Your task to perform on an android device: Show me productivity apps on the Play Store Image 0: 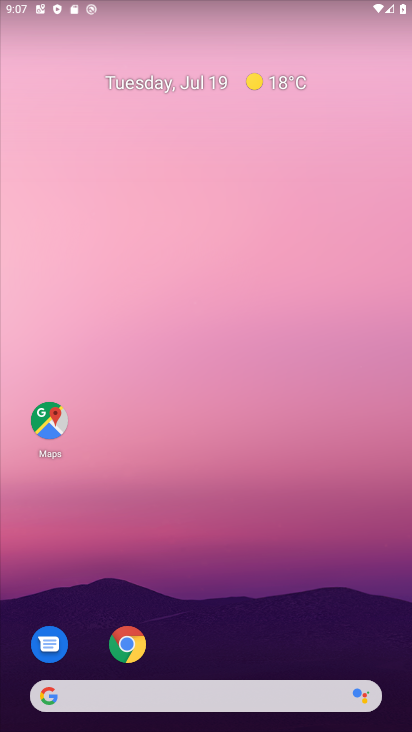
Step 0: drag from (233, 726) to (232, 197)
Your task to perform on an android device: Show me productivity apps on the Play Store Image 1: 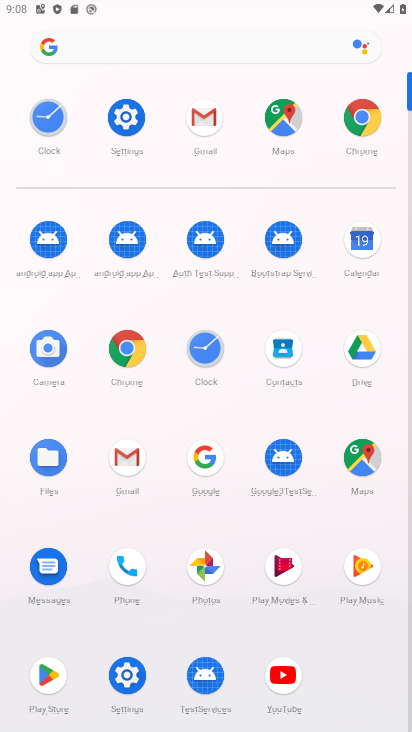
Step 1: click (43, 682)
Your task to perform on an android device: Show me productivity apps on the Play Store Image 2: 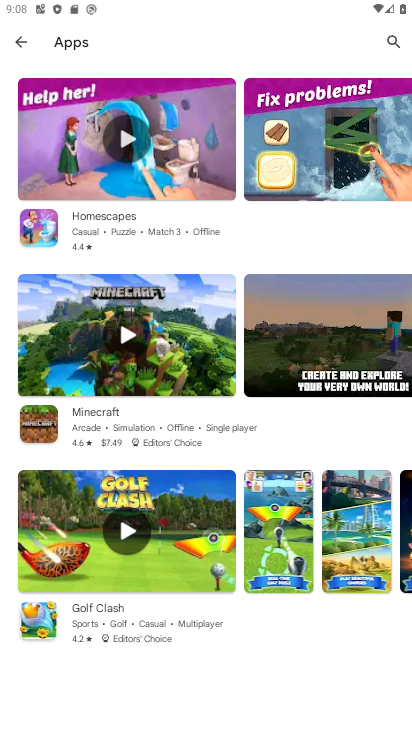
Step 2: drag from (246, 613) to (199, 208)
Your task to perform on an android device: Show me productivity apps on the Play Store Image 3: 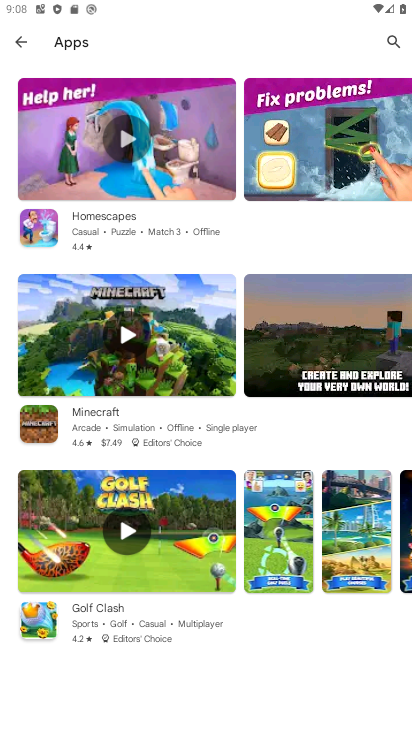
Step 3: click (26, 39)
Your task to perform on an android device: Show me productivity apps on the Play Store Image 4: 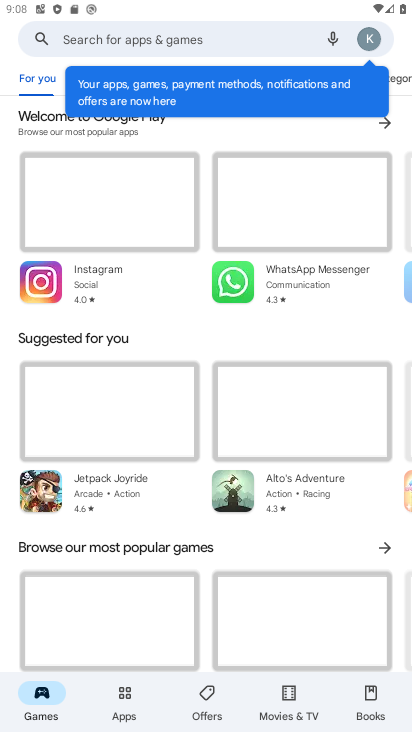
Step 4: click (129, 700)
Your task to perform on an android device: Show me productivity apps on the Play Store Image 5: 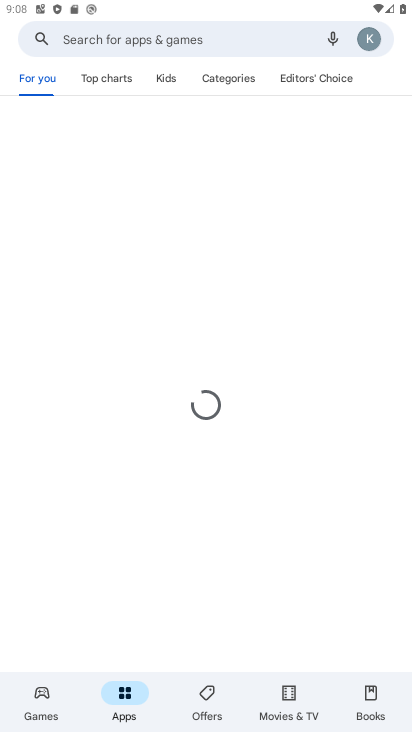
Step 5: click (238, 77)
Your task to perform on an android device: Show me productivity apps on the Play Store Image 6: 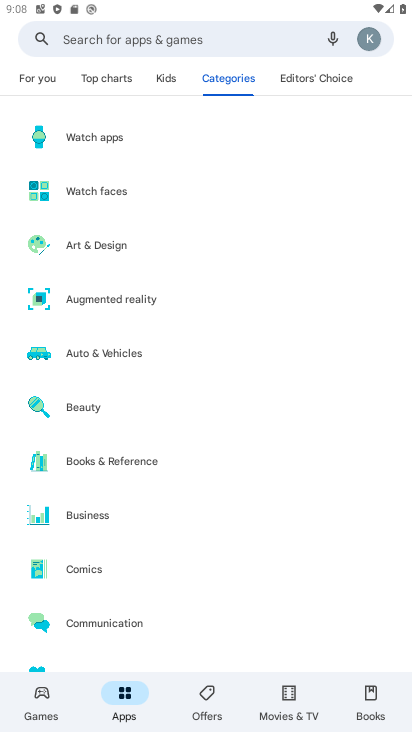
Step 6: drag from (194, 633) to (200, 338)
Your task to perform on an android device: Show me productivity apps on the Play Store Image 7: 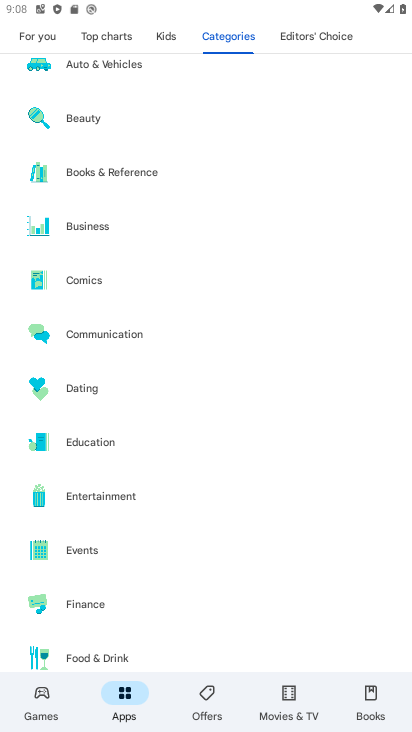
Step 7: drag from (138, 642) to (132, 294)
Your task to perform on an android device: Show me productivity apps on the Play Store Image 8: 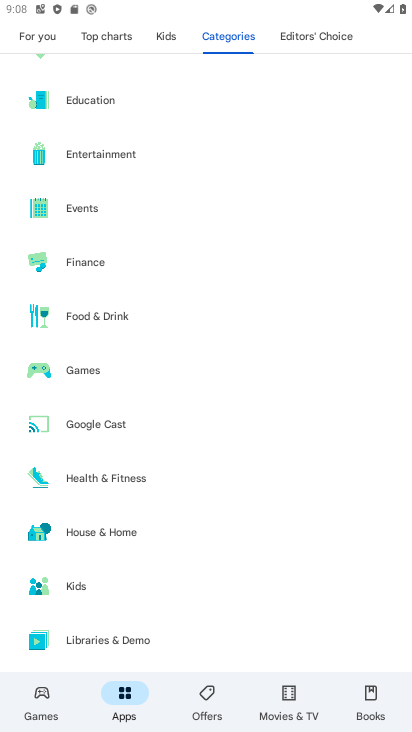
Step 8: drag from (155, 626) to (149, 318)
Your task to perform on an android device: Show me productivity apps on the Play Store Image 9: 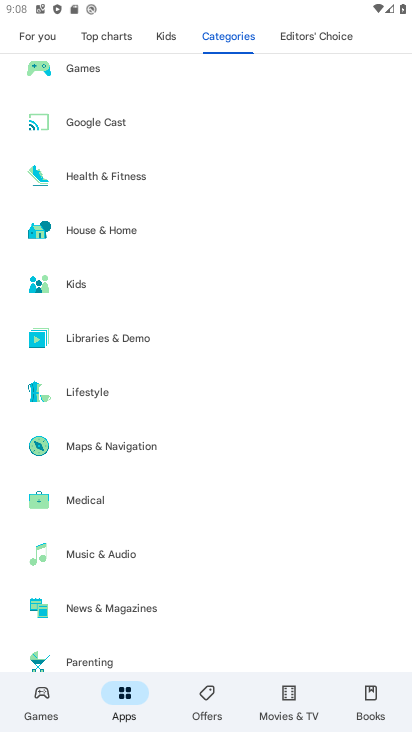
Step 9: drag from (173, 626) to (177, 280)
Your task to perform on an android device: Show me productivity apps on the Play Store Image 10: 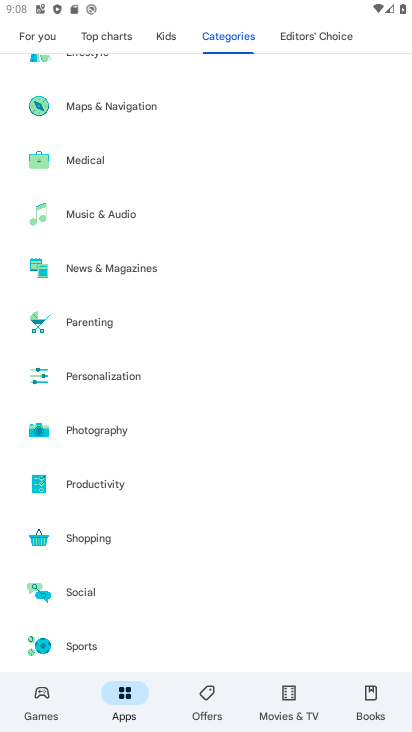
Step 10: click (92, 487)
Your task to perform on an android device: Show me productivity apps on the Play Store Image 11: 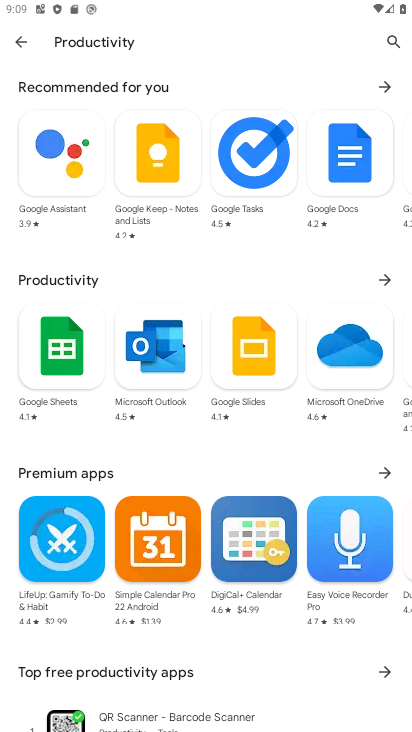
Step 11: task complete